Your task to perform on an android device: turn on the 12-hour format for clock Image 0: 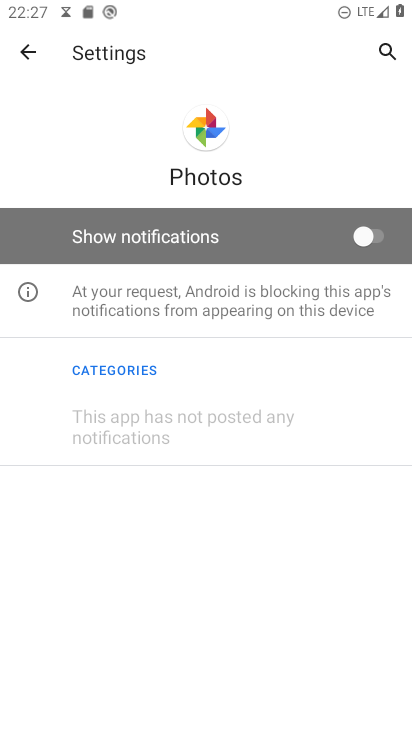
Step 0: press home button
Your task to perform on an android device: turn on the 12-hour format for clock Image 1: 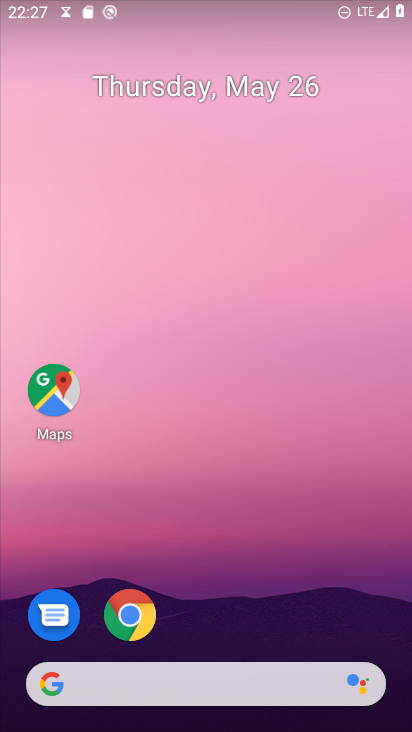
Step 1: drag from (274, 587) to (303, 285)
Your task to perform on an android device: turn on the 12-hour format for clock Image 2: 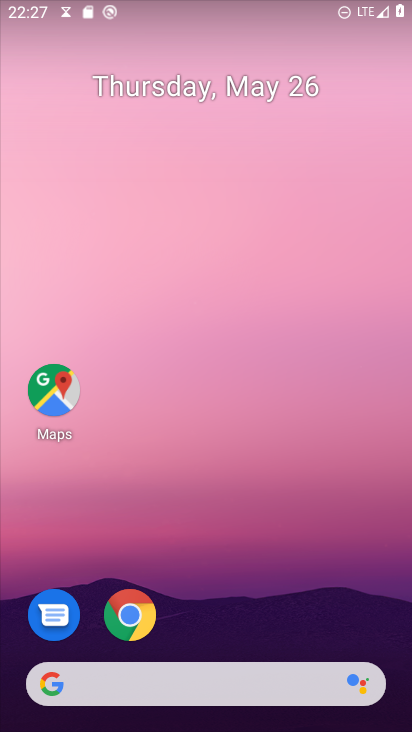
Step 2: drag from (240, 605) to (229, 185)
Your task to perform on an android device: turn on the 12-hour format for clock Image 3: 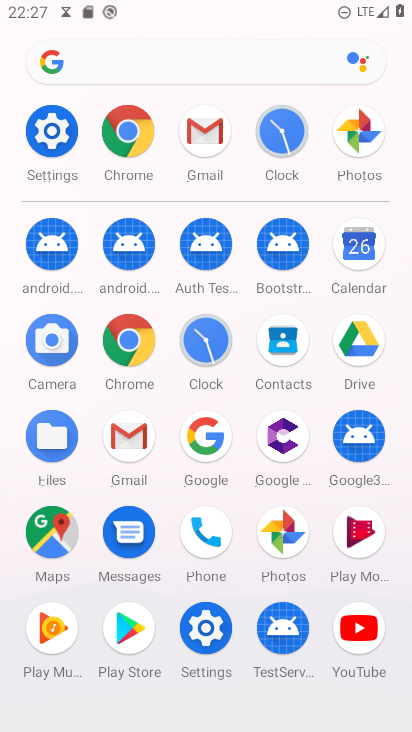
Step 3: click (204, 341)
Your task to perform on an android device: turn on the 12-hour format for clock Image 4: 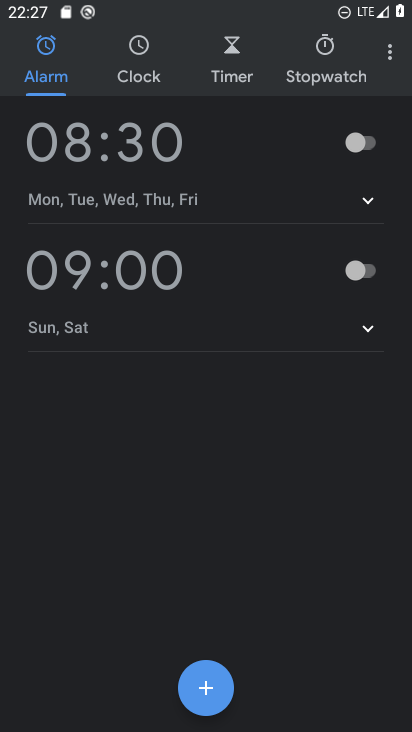
Step 4: click (386, 50)
Your task to perform on an android device: turn on the 12-hour format for clock Image 5: 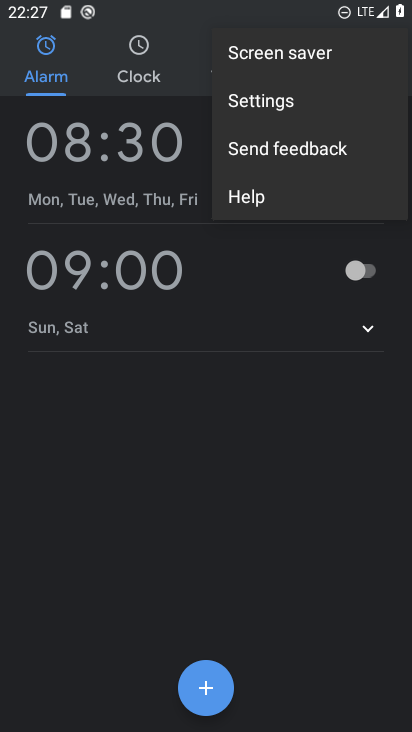
Step 5: click (302, 113)
Your task to perform on an android device: turn on the 12-hour format for clock Image 6: 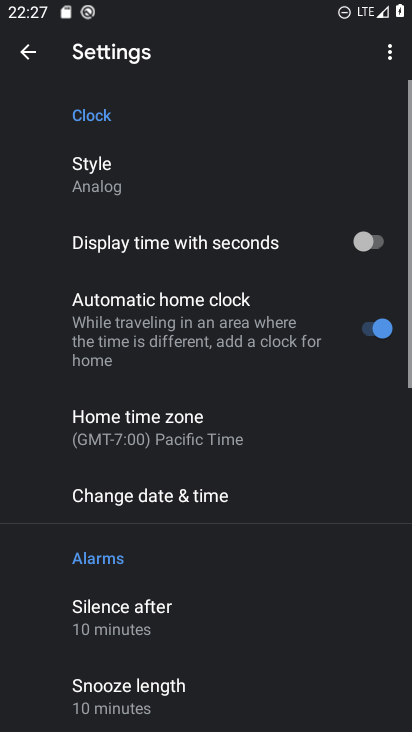
Step 6: click (263, 490)
Your task to perform on an android device: turn on the 12-hour format for clock Image 7: 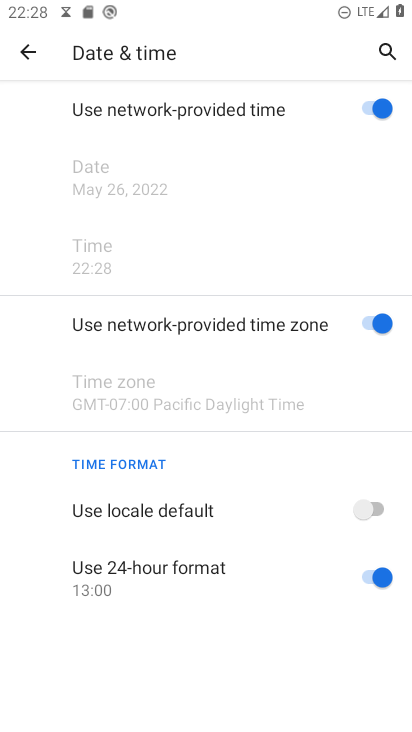
Step 7: task complete